Your task to perform on an android device: install app "Pluto TV - Live TV and Movies" Image 0: 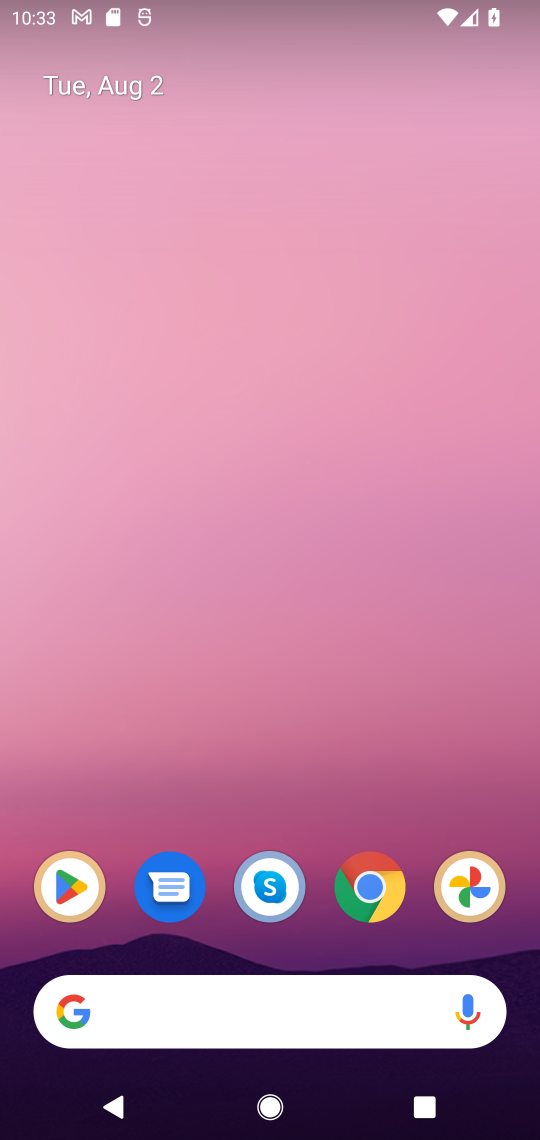
Step 0: drag from (282, 957) to (276, 11)
Your task to perform on an android device: install app "Pluto TV - Live TV and Movies" Image 1: 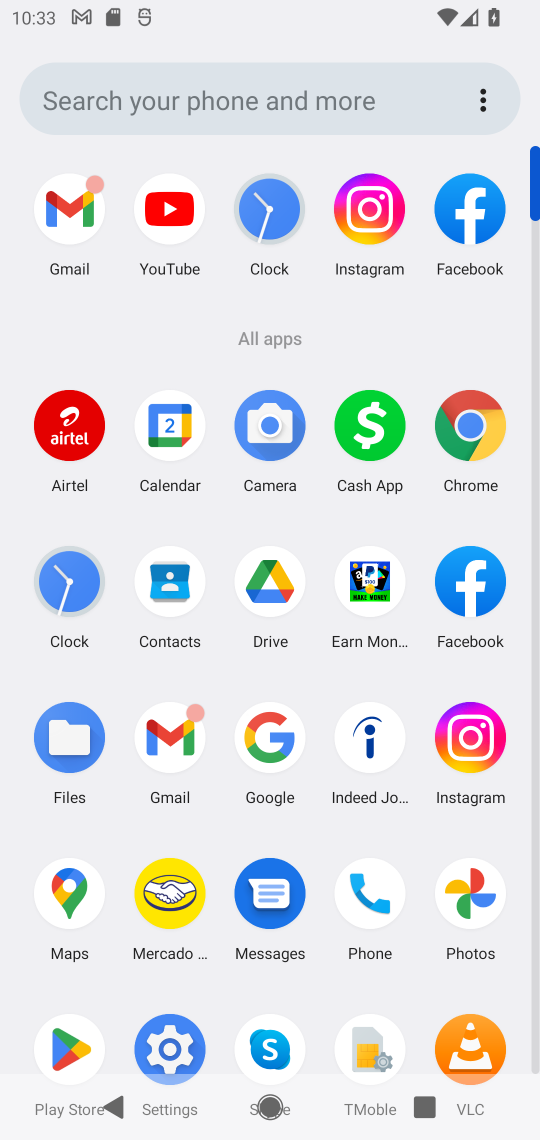
Step 1: click (67, 1053)
Your task to perform on an android device: install app "Pluto TV - Live TV and Movies" Image 2: 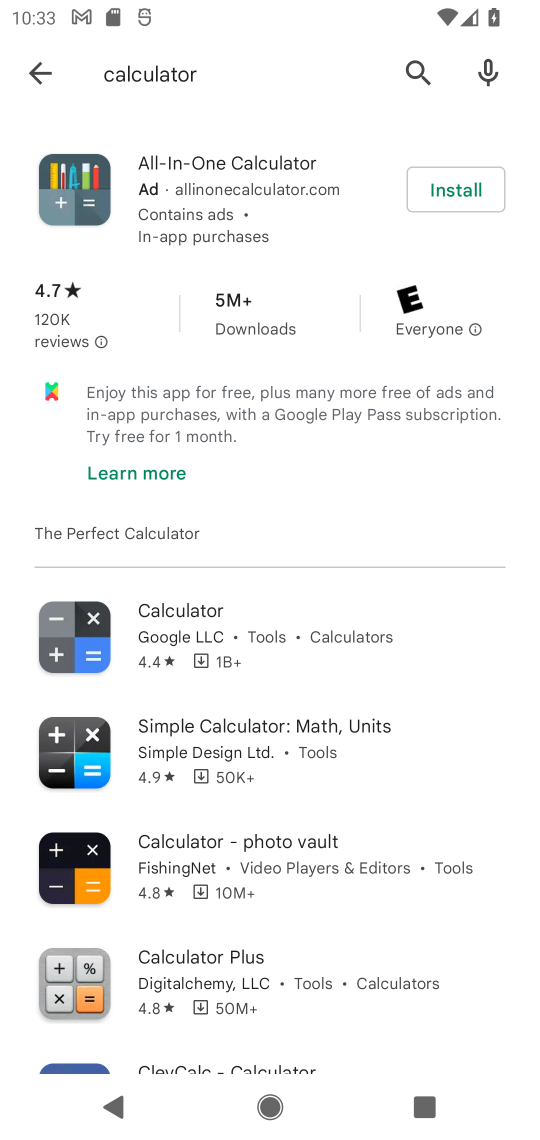
Step 2: click (48, 66)
Your task to perform on an android device: install app "Pluto TV - Live TV and Movies" Image 3: 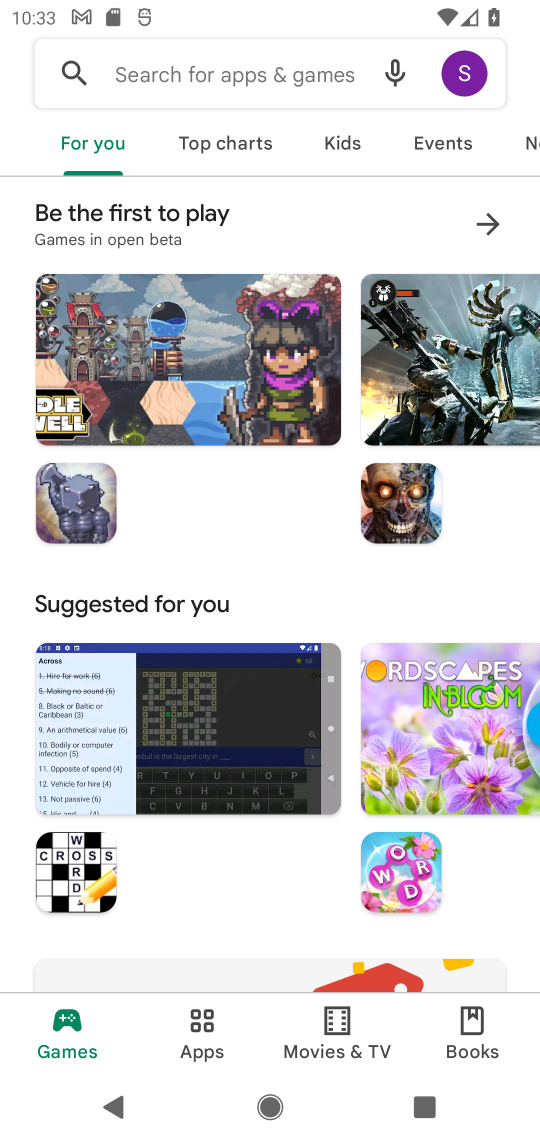
Step 3: click (136, 97)
Your task to perform on an android device: install app "Pluto TV - Live TV and Movies" Image 4: 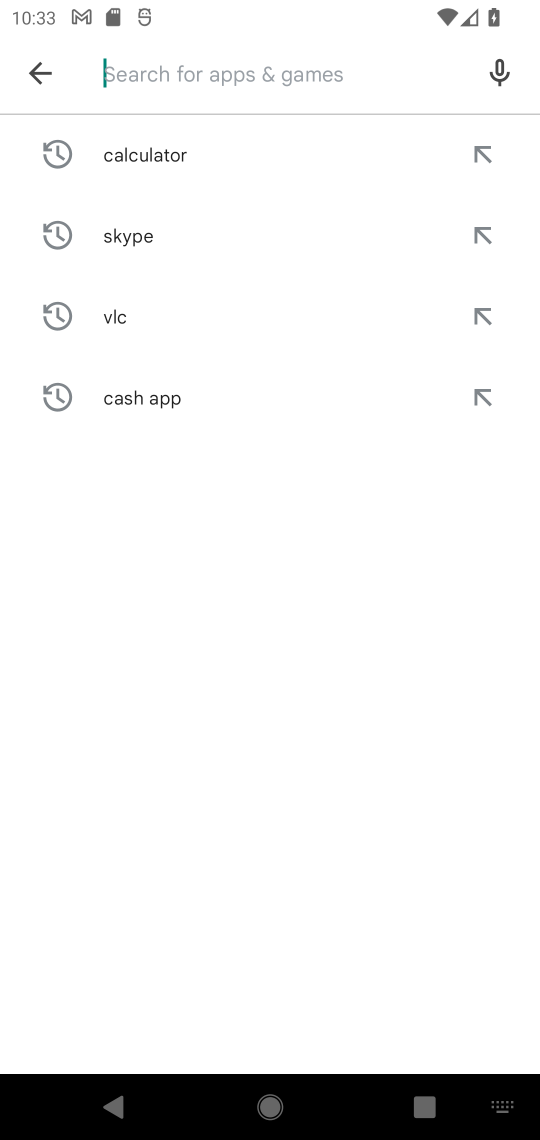
Step 4: type "Pluto TV - Live TV and Movies"
Your task to perform on an android device: install app "Pluto TV - Live TV and Movies" Image 5: 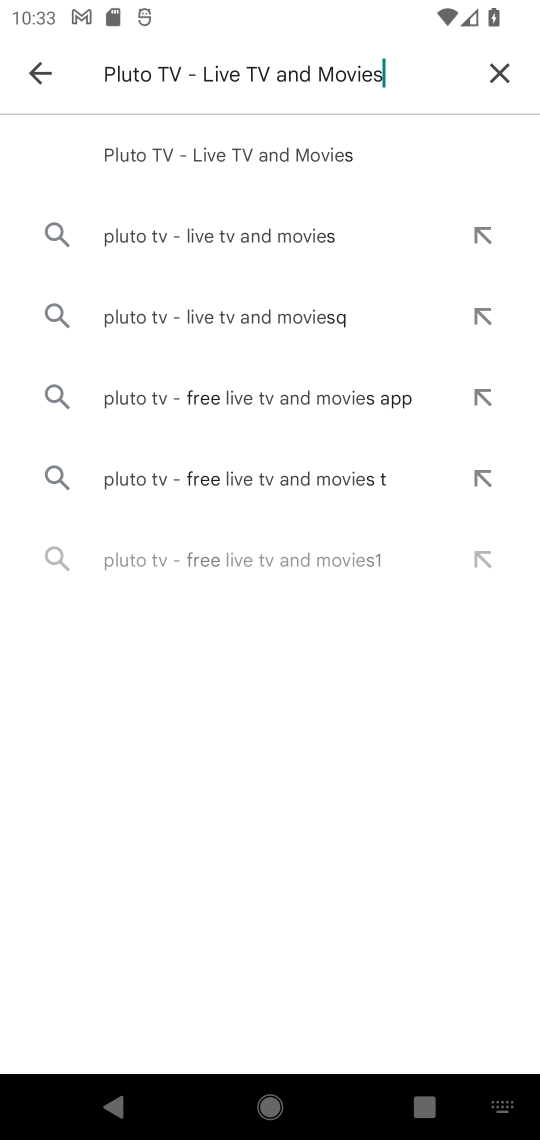
Step 5: type ""
Your task to perform on an android device: install app "Pluto TV - Live TV and Movies" Image 6: 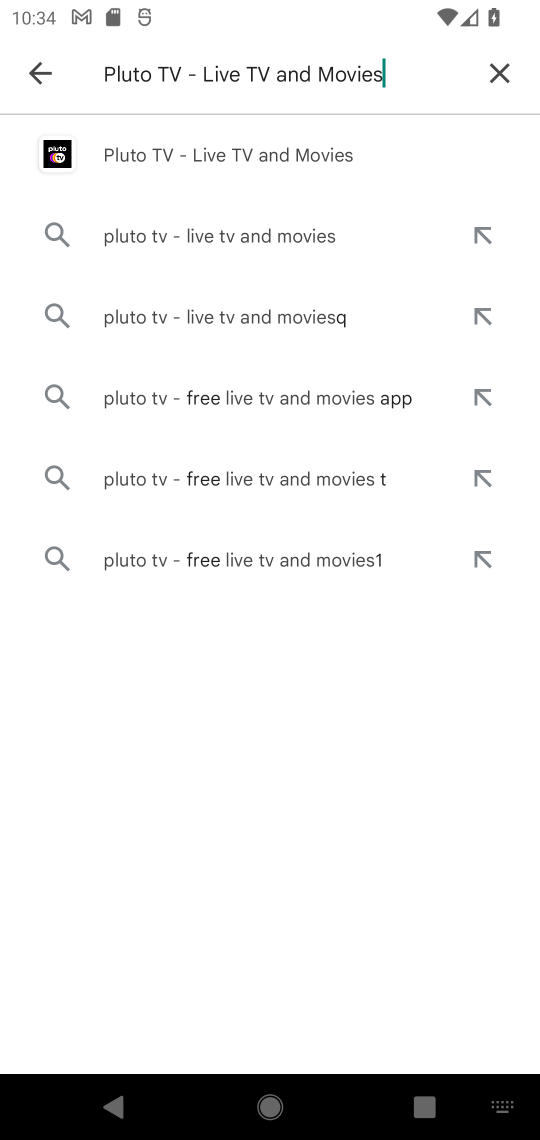
Step 6: click (120, 166)
Your task to perform on an android device: install app "Pluto TV - Live TV and Movies" Image 7: 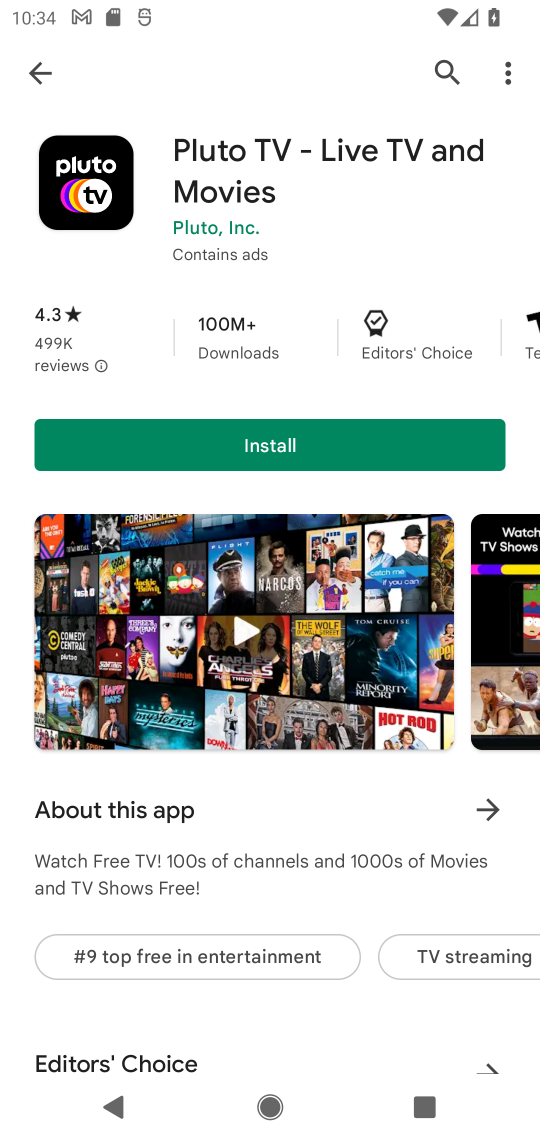
Step 7: click (264, 446)
Your task to perform on an android device: install app "Pluto TV - Live TV and Movies" Image 8: 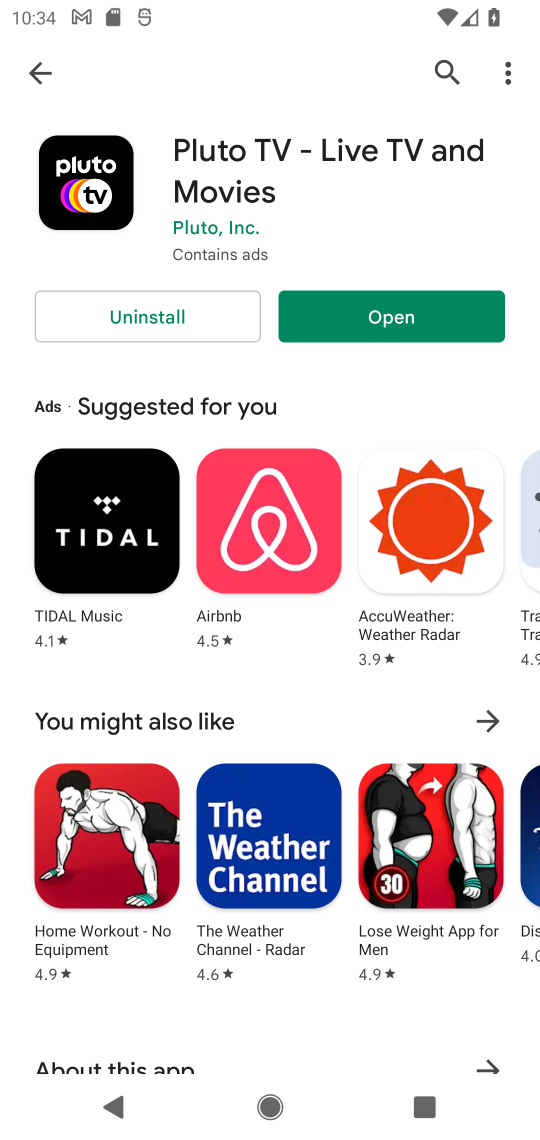
Step 8: click (441, 314)
Your task to perform on an android device: install app "Pluto TV - Live TV and Movies" Image 9: 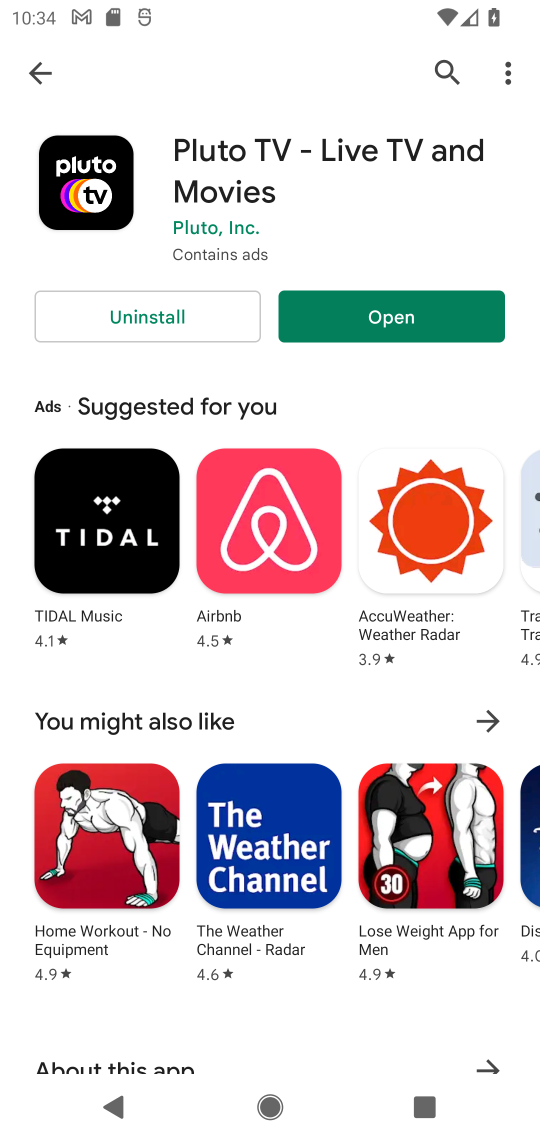
Step 9: task complete